Your task to perform on an android device: Open eBay Image 0: 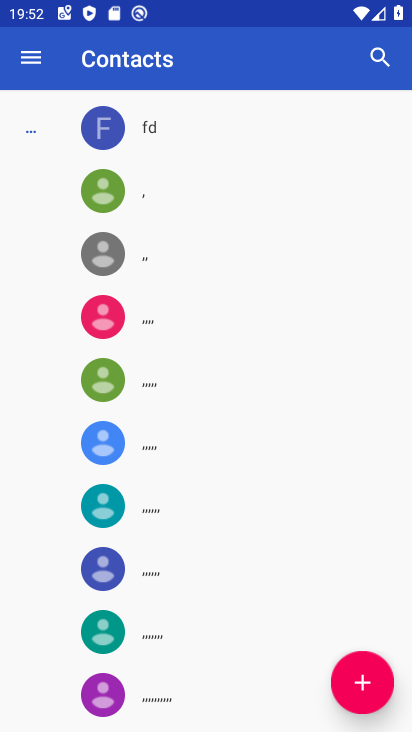
Step 0: press back button
Your task to perform on an android device: Open eBay Image 1: 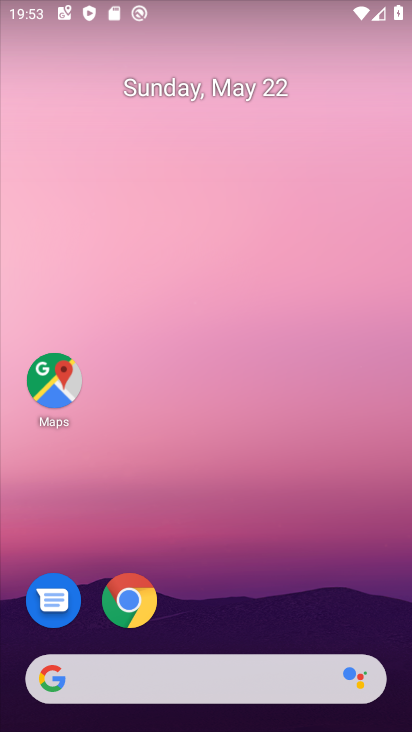
Step 1: drag from (219, 565) to (193, 88)
Your task to perform on an android device: Open eBay Image 2: 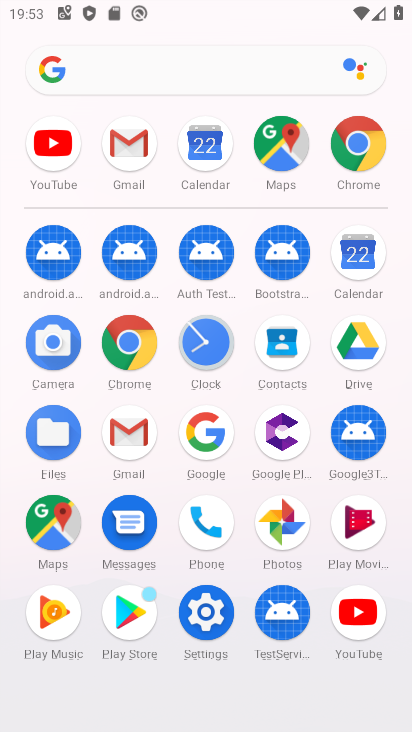
Step 2: click (124, 344)
Your task to perform on an android device: Open eBay Image 3: 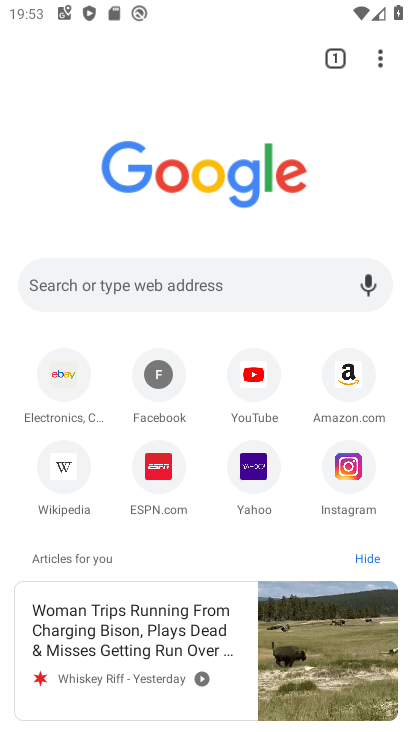
Step 3: click (61, 376)
Your task to perform on an android device: Open eBay Image 4: 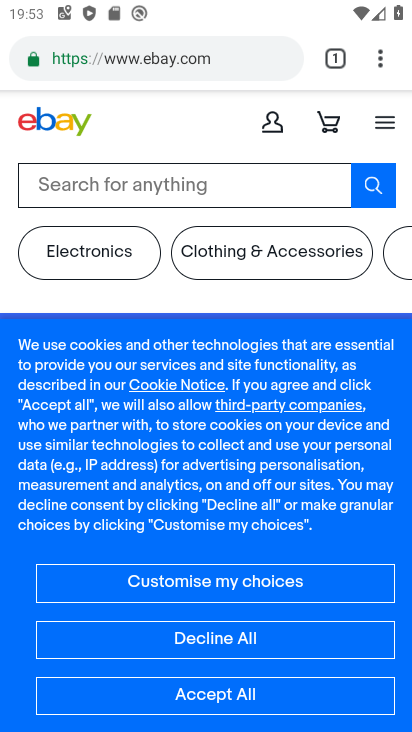
Step 4: task complete